Your task to perform on an android device: Search for Mexican restaurants on Maps Image 0: 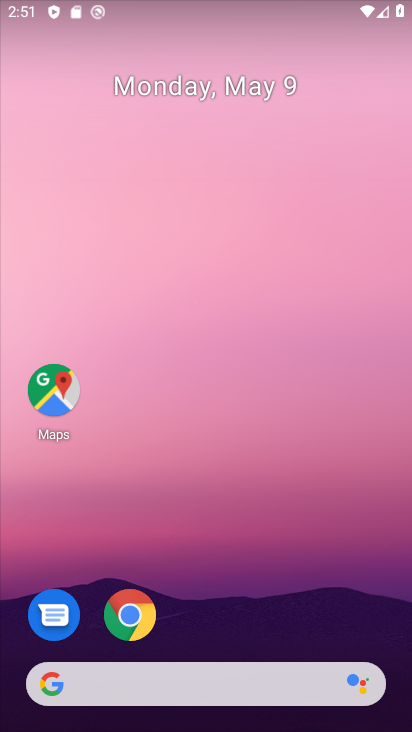
Step 0: drag from (277, 609) to (303, 268)
Your task to perform on an android device: Search for Mexican restaurants on Maps Image 1: 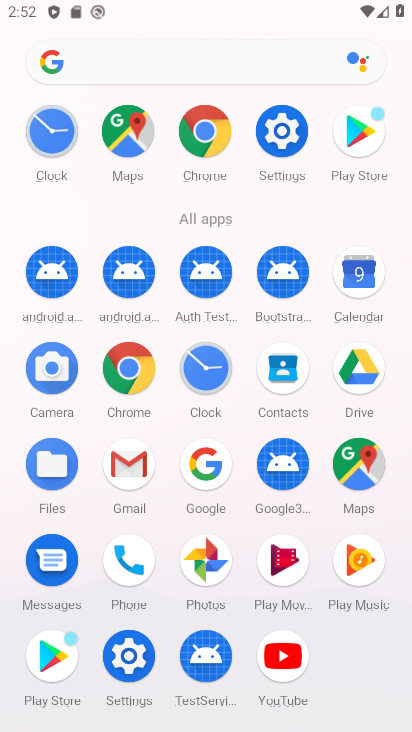
Step 1: click (348, 455)
Your task to perform on an android device: Search for Mexican restaurants on Maps Image 2: 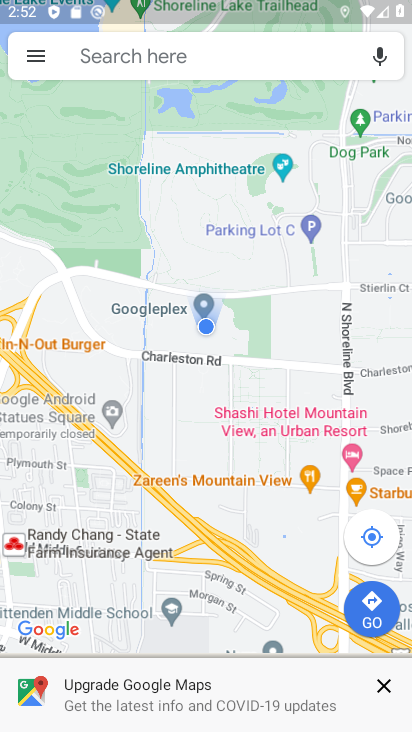
Step 2: click (234, 37)
Your task to perform on an android device: Search for Mexican restaurants on Maps Image 3: 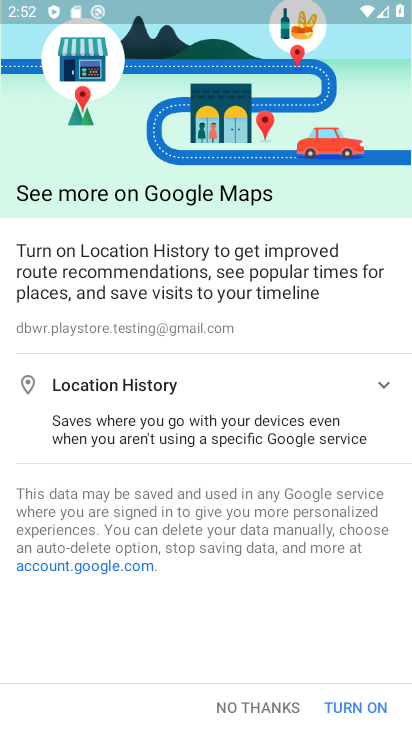
Step 3: click (250, 700)
Your task to perform on an android device: Search for Mexican restaurants on Maps Image 4: 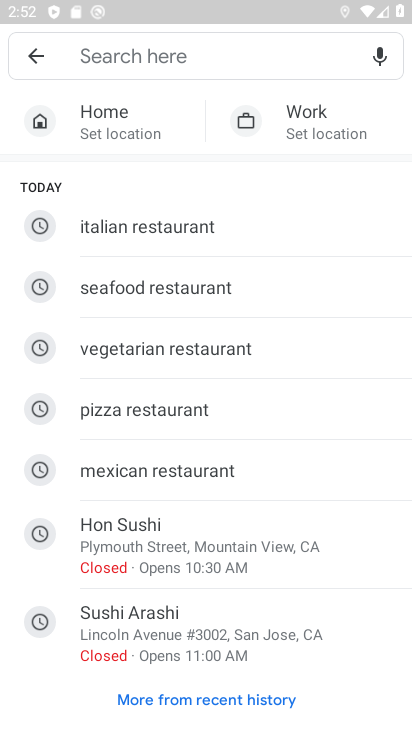
Step 4: click (193, 471)
Your task to perform on an android device: Search for Mexican restaurants on Maps Image 5: 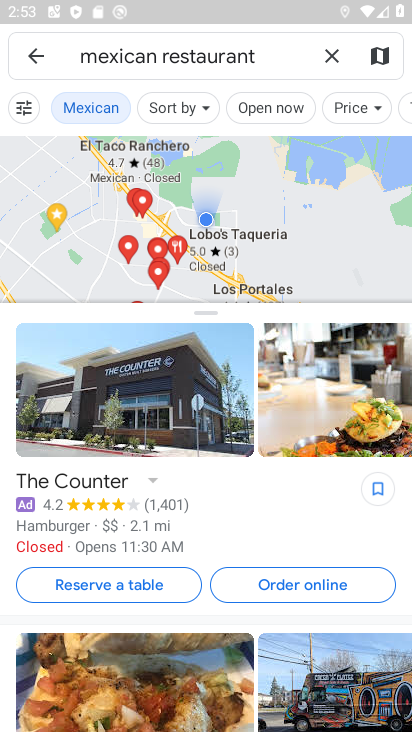
Step 5: task complete